Your task to perform on an android device: toggle pop-ups in chrome Image 0: 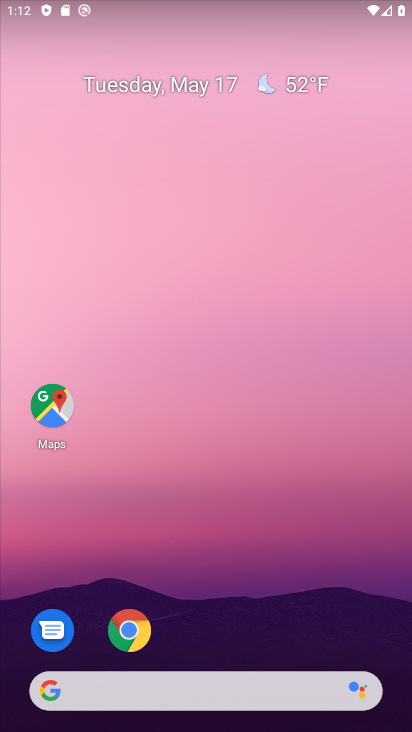
Step 0: click (127, 634)
Your task to perform on an android device: toggle pop-ups in chrome Image 1: 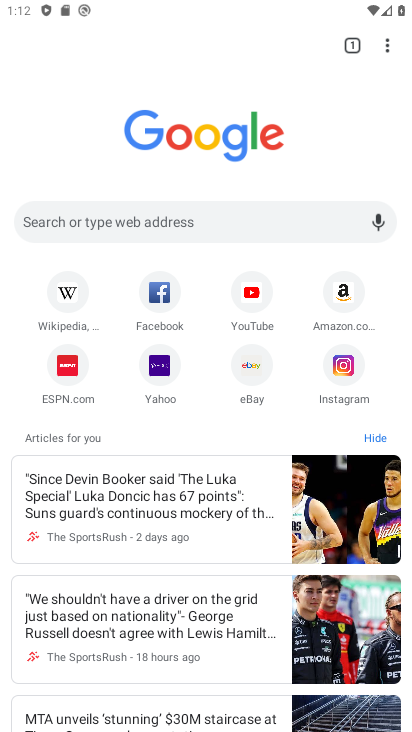
Step 1: drag from (391, 39) to (218, 382)
Your task to perform on an android device: toggle pop-ups in chrome Image 2: 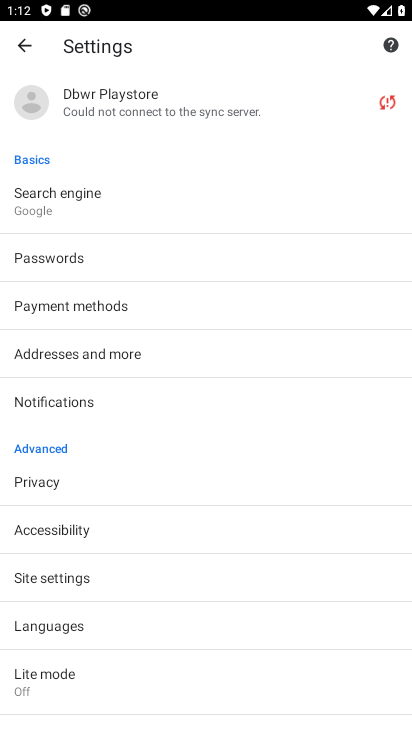
Step 2: click (70, 581)
Your task to perform on an android device: toggle pop-ups in chrome Image 3: 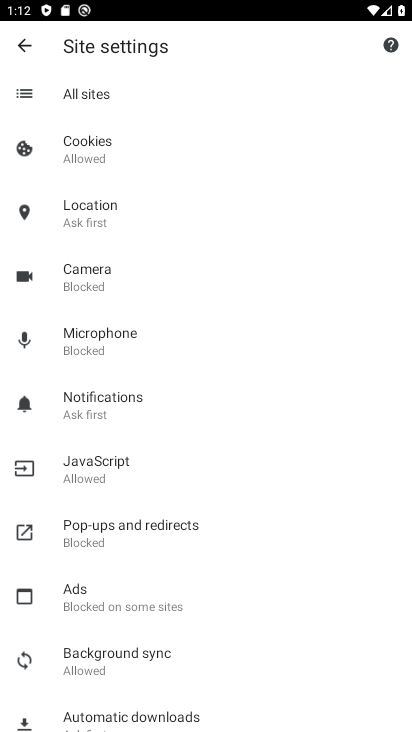
Step 3: click (126, 535)
Your task to perform on an android device: toggle pop-ups in chrome Image 4: 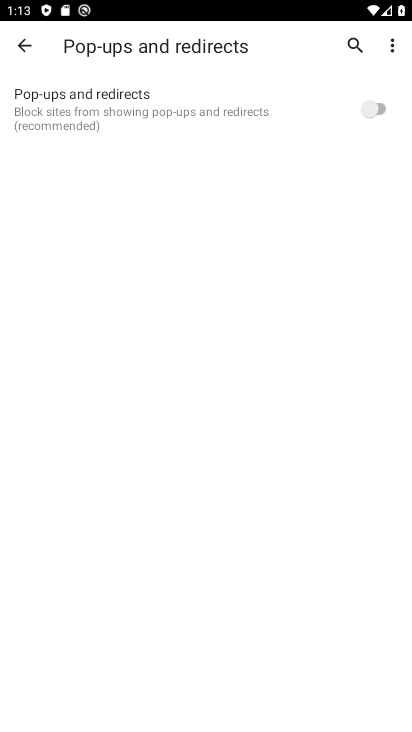
Step 4: click (363, 112)
Your task to perform on an android device: toggle pop-ups in chrome Image 5: 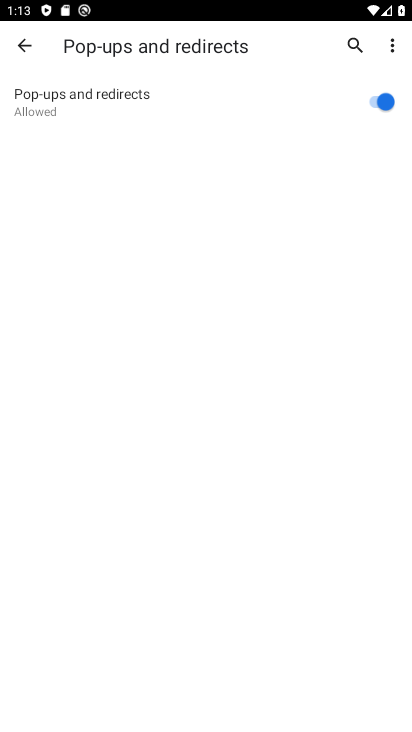
Step 5: task complete